Your task to perform on an android device: move a message to another label in the gmail app Image 0: 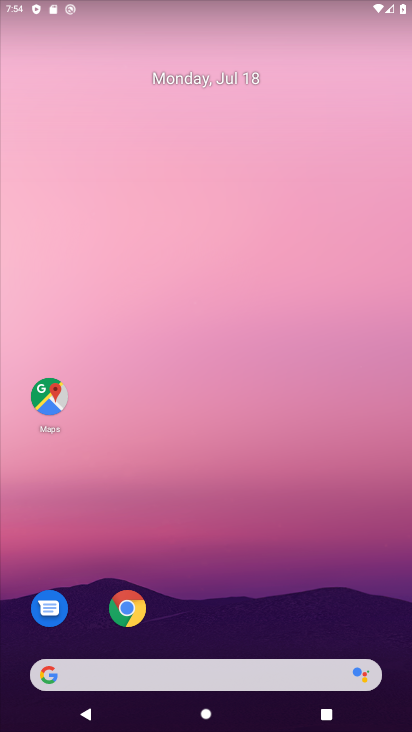
Step 0: drag from (166, 461) to (275, 251)
Your task to perform on an android device: move a message to another label in the gmail app Image 1: 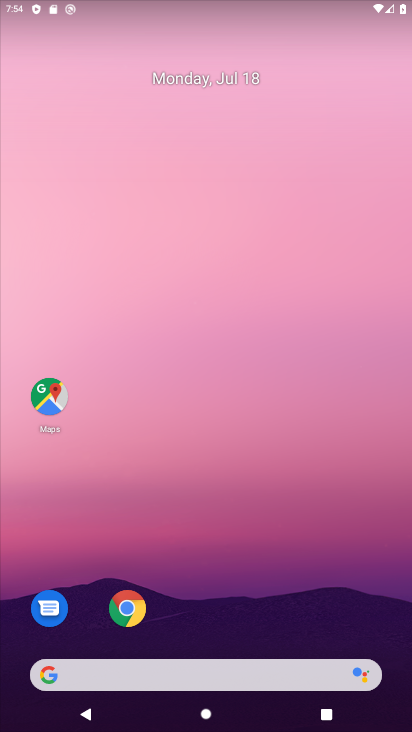
Step 1: drag from (0, 708) to (191, 224)
Your task to perform on an android device: move a message to another label in the gmail app Image 2: 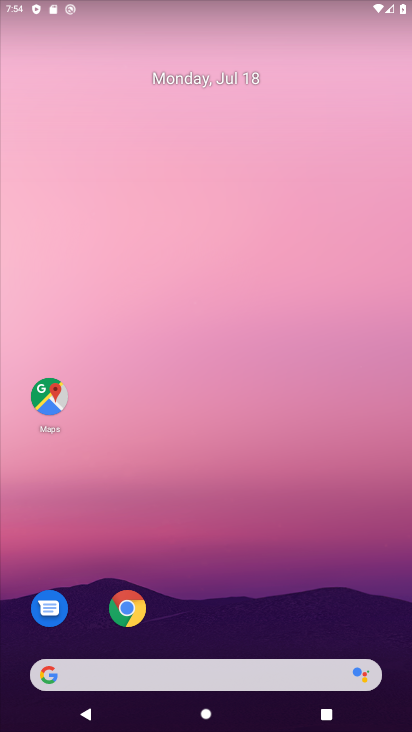
Step 2: drag from (133, 341) to (176, 199)
Your task to perform on an android device: move a message to another label in the gmail app Image 3: 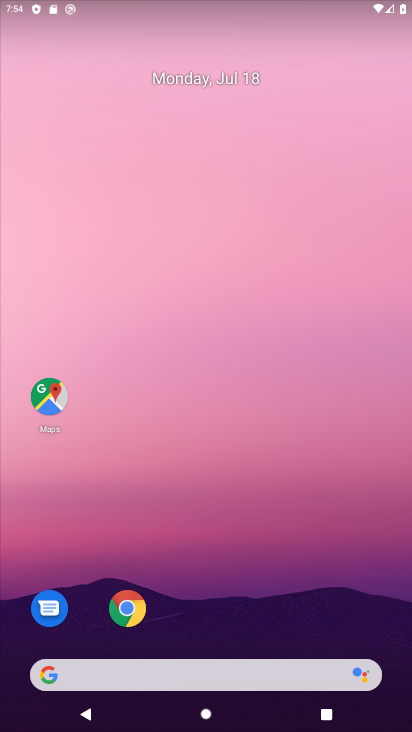
Step 3: drag from (98, 284) to (172, 99)
Your task to perform on an android device: move a message to another label in the gmail app Image 4: 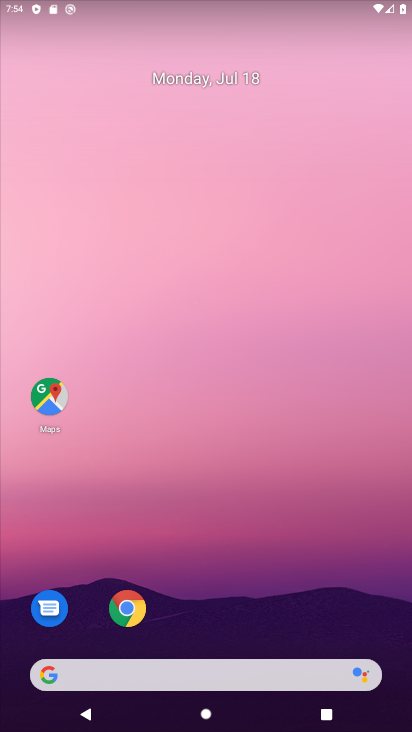
Step 4: drag from (125, 288) to (169, 180)
Your task to perform on an android device: move a message to another label in the gmail app Image 5: 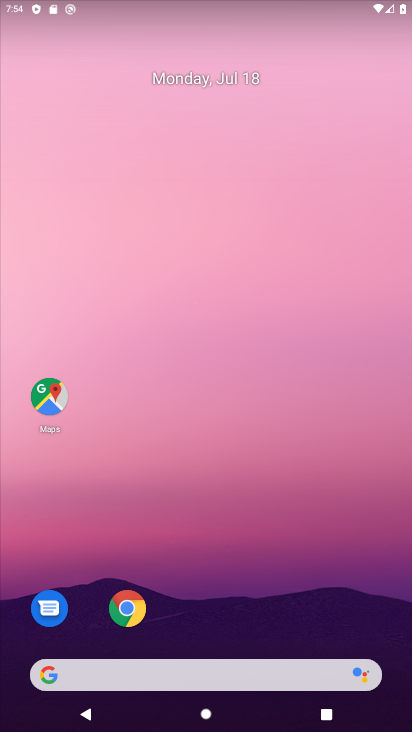
Step 5: drag from (43, 646) to (204, 102)
Your task to perform on an android device: move a message to another label in the gmail app Image 6: 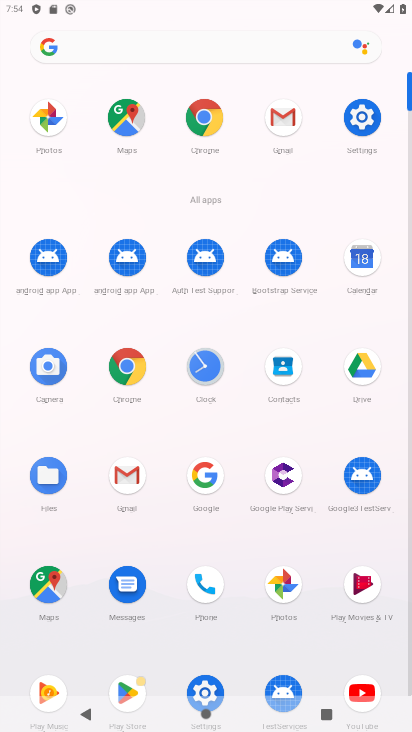
Step 6: click (112, 478)
Your task to perform on an android device: move a message to another label in the gmail app Image 7: 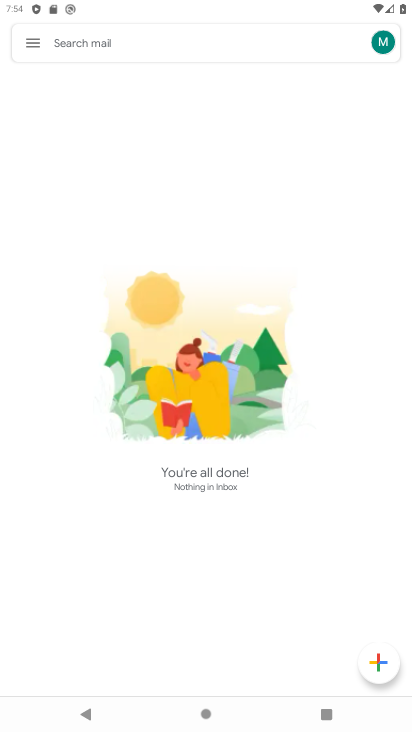
Step 7: click (21, 39)
Your task to perform on an android device: move a message to another label in the gmail app Image 8: 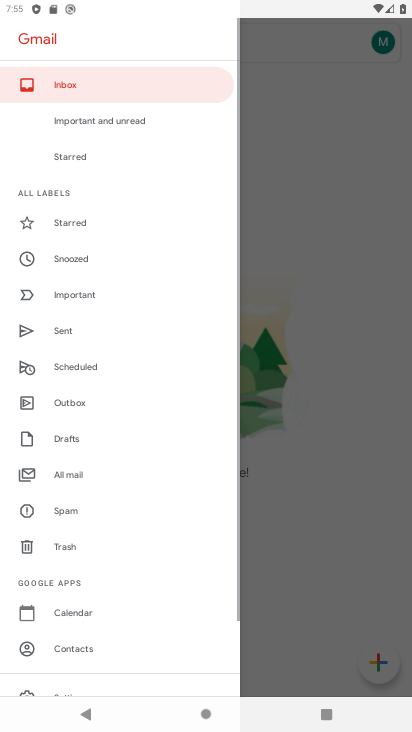
Step 8: click (116, 86)
Your task to perform on an android device: move a message to another label in the gmail app Image 9: 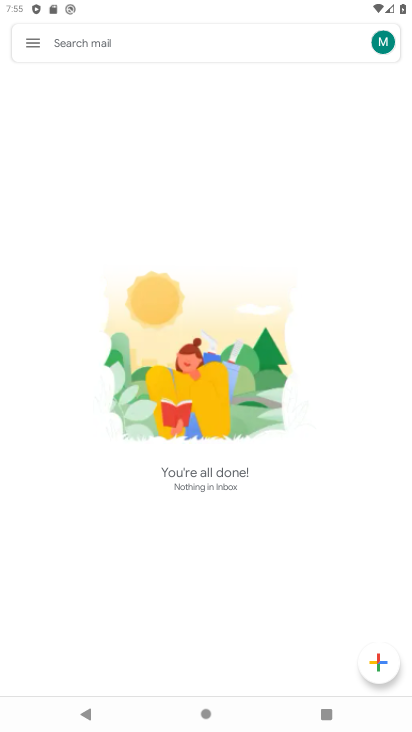
Step 9: task complete